Your task to perform on an android device: remove spam from my inbox in the gmail app Image 0: 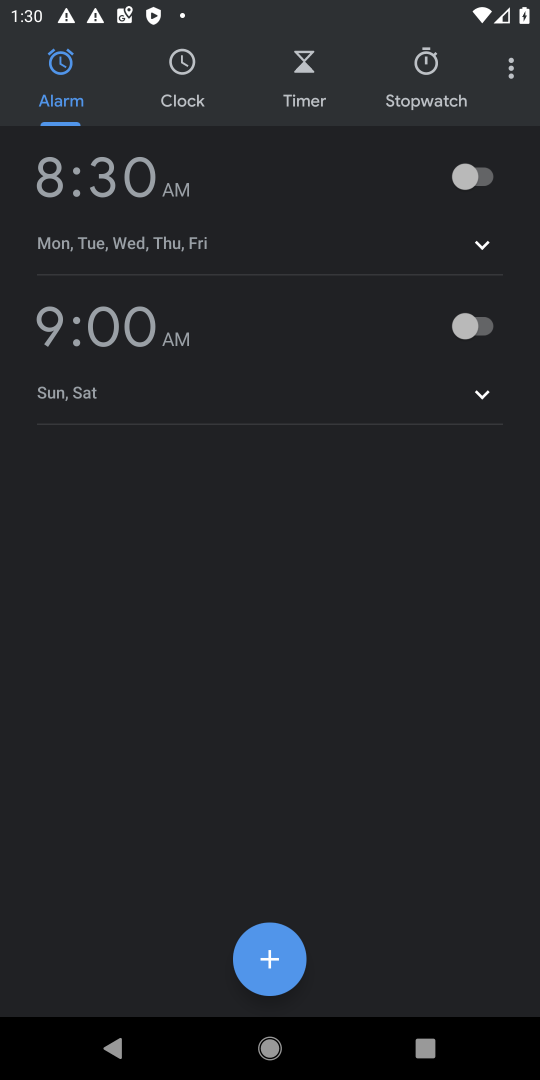
Step 0: press home button
Your task to perform on an android device: remove spam from my inbox in the gmail app Image 1: 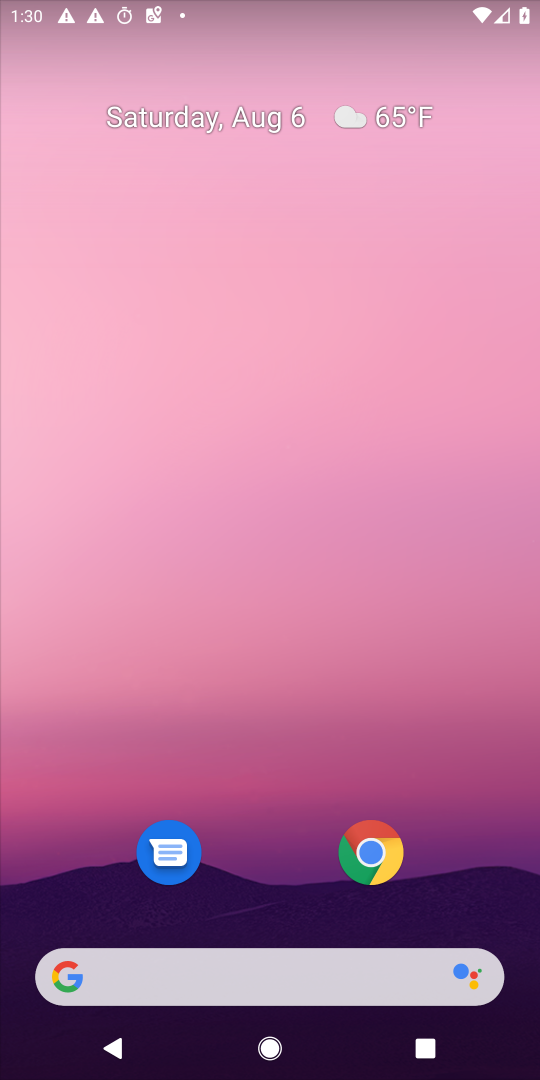
Step 1: drag from (299, 984) to (249, 359)
Your task to perform on an android device: remove spam from my inbox in the gmail app Image 2: 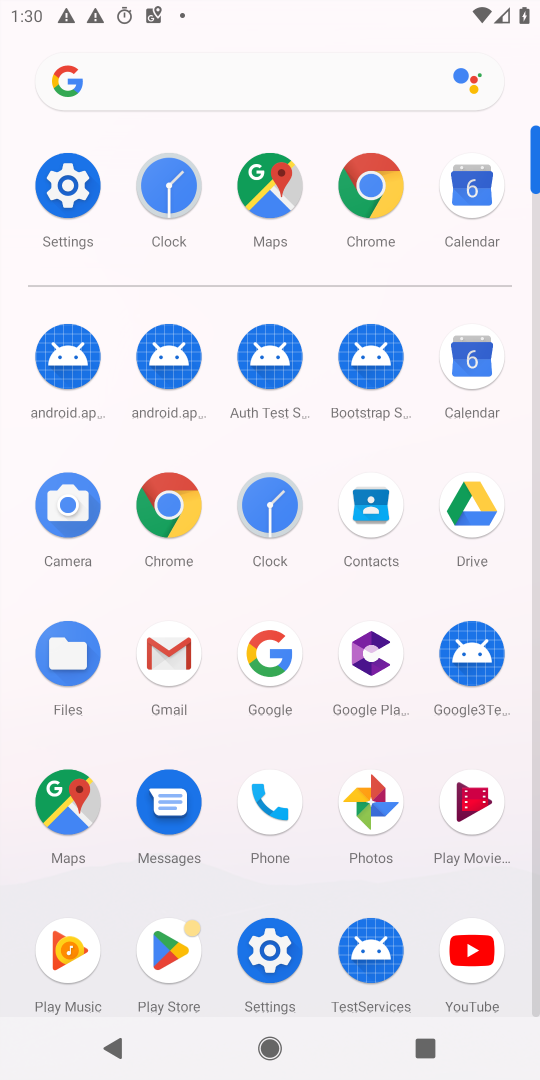
Step 2: click (172, 670)
Your task to perform on an android device: remove spam from my inbox in the gmail app Image 3: 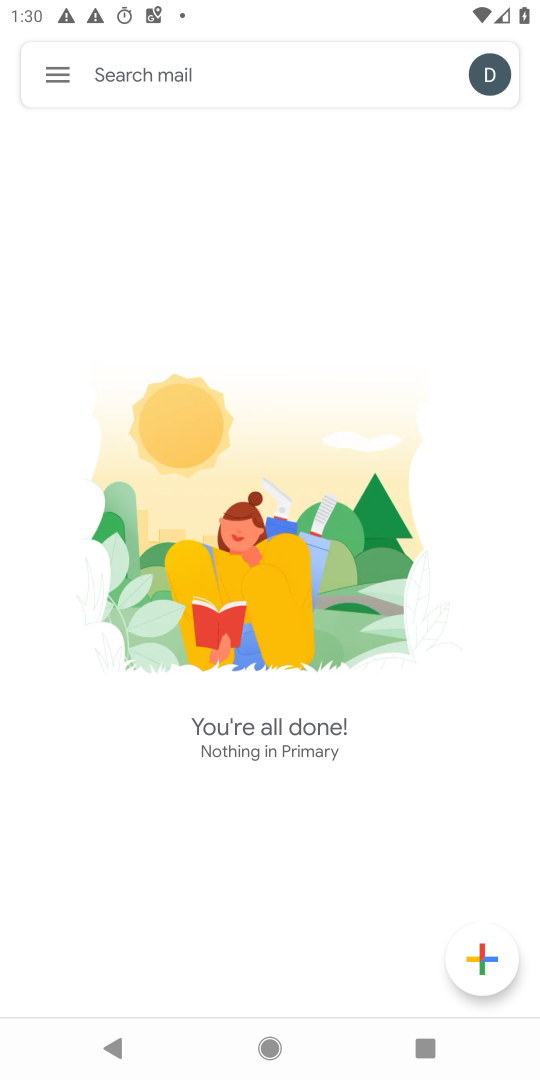
Step 3: click (51, 86)
Your task to perform on an android device: remove spam from my inbox in the gmail app Image 4: 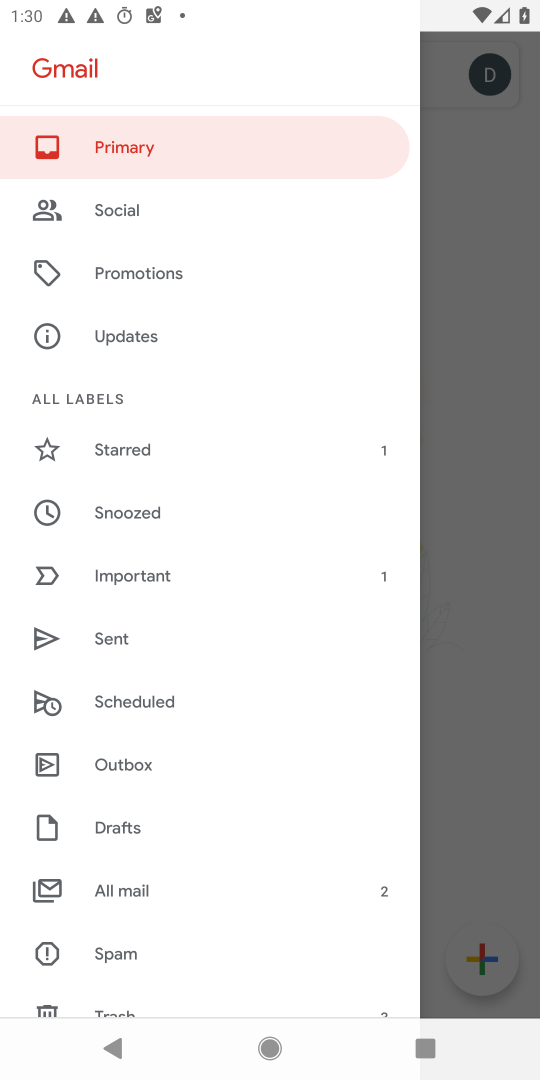
Step 4: click (113, 942)
Your task to perform on an android device: remove spam from my inbox in the gmail app Image 5: 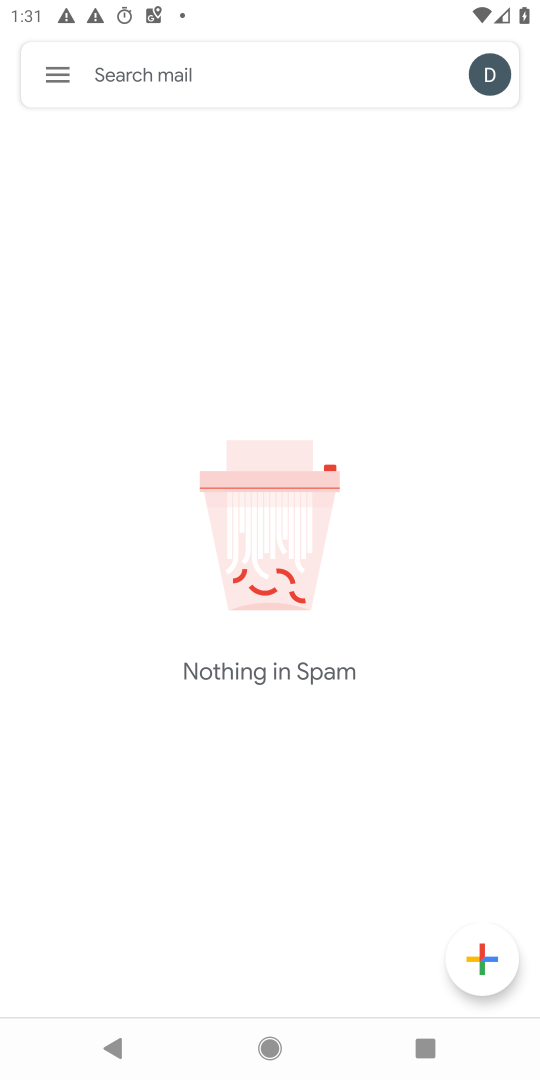
Step 5: task complete